Your task to perform on an android device: open app "Google Find My Device" Image 0: 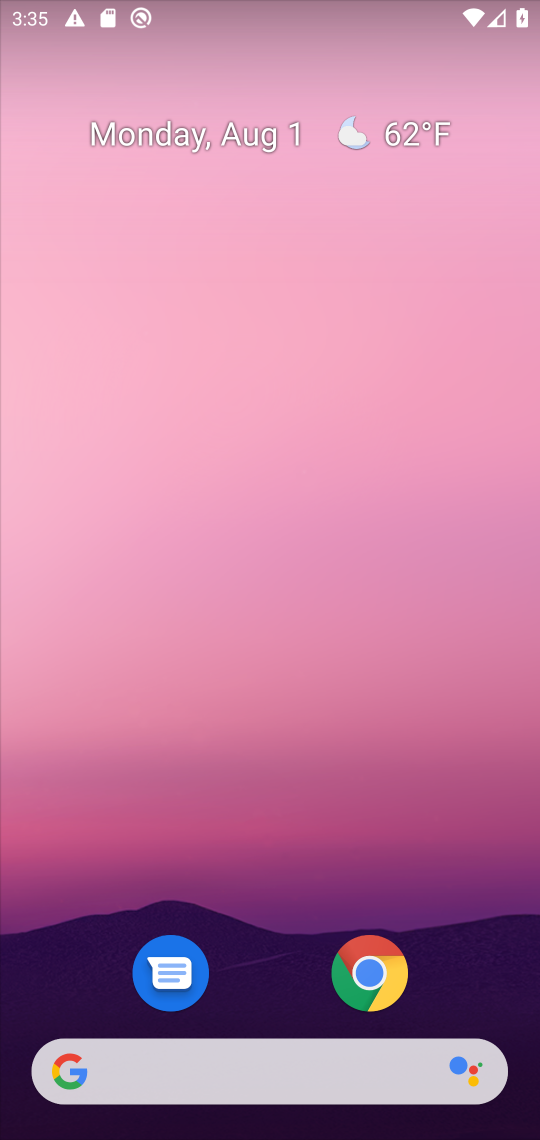
Step 0: press back button
Your task to perform on an android device: open app "Google Find My Device" Image 1: 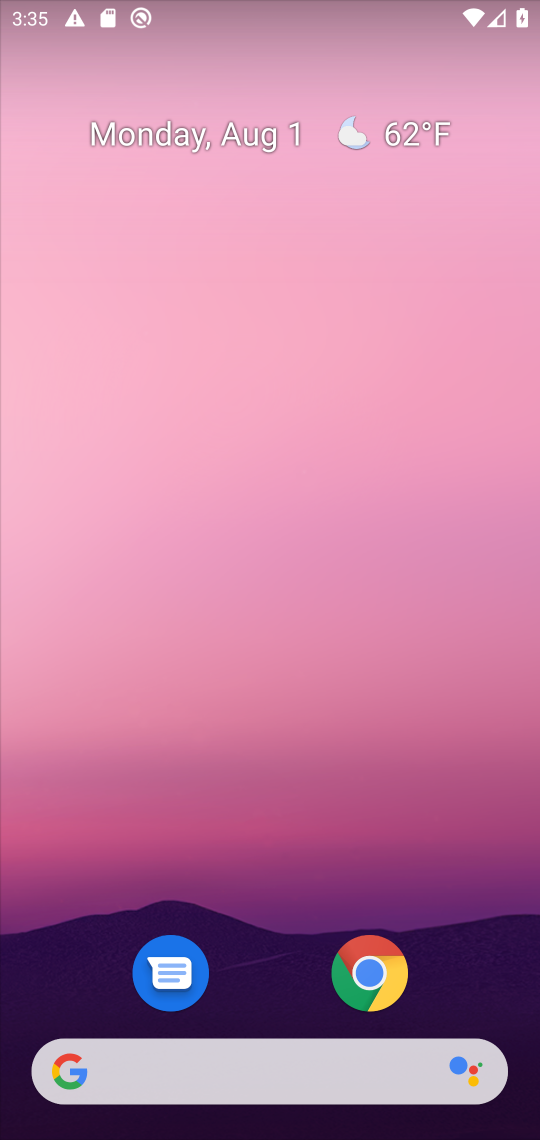
Step 1: drag from (269, 927) to (177, 382)
Your task to perform on an android device: open app "Google Find My Device" Image 2: 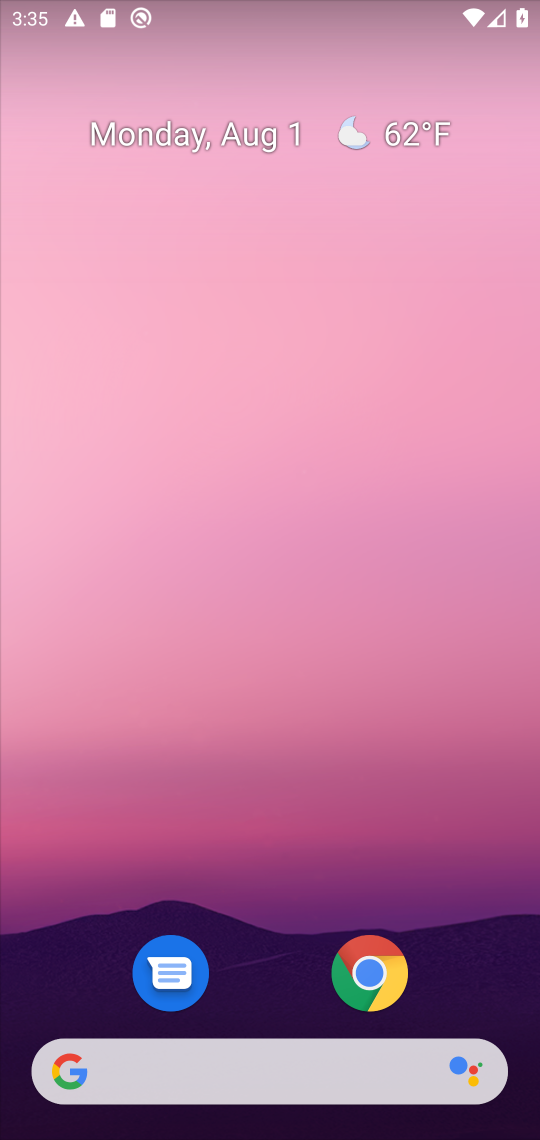
Step 2: click (205, 493)
Your task to perform on an android device: open app "Google Find My Device" Image 3: 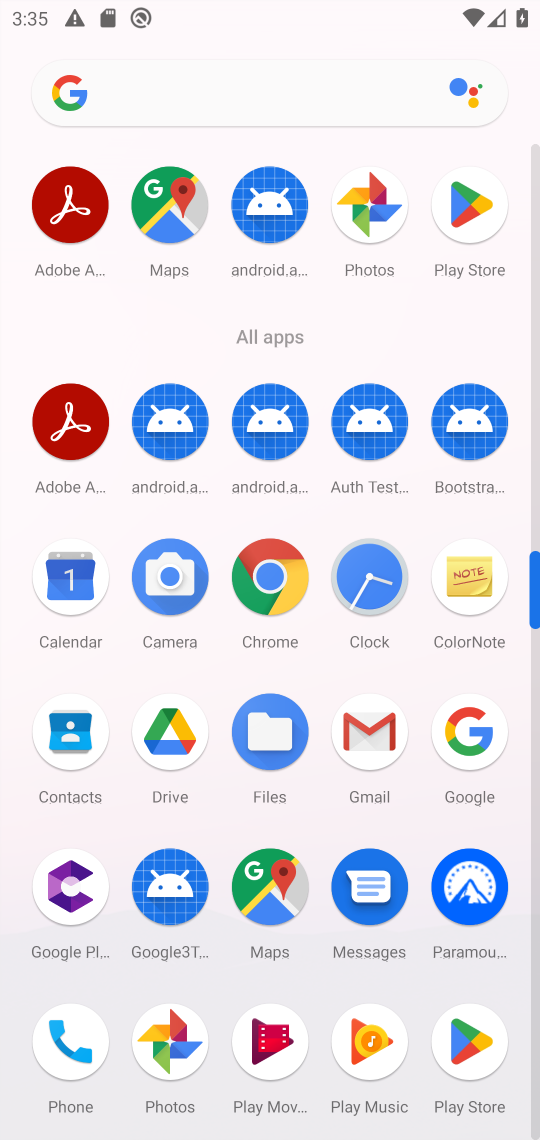
Step 3: click (474, 207)
Your task to perform on an android device: open app "Google Find My Device" Image 4: 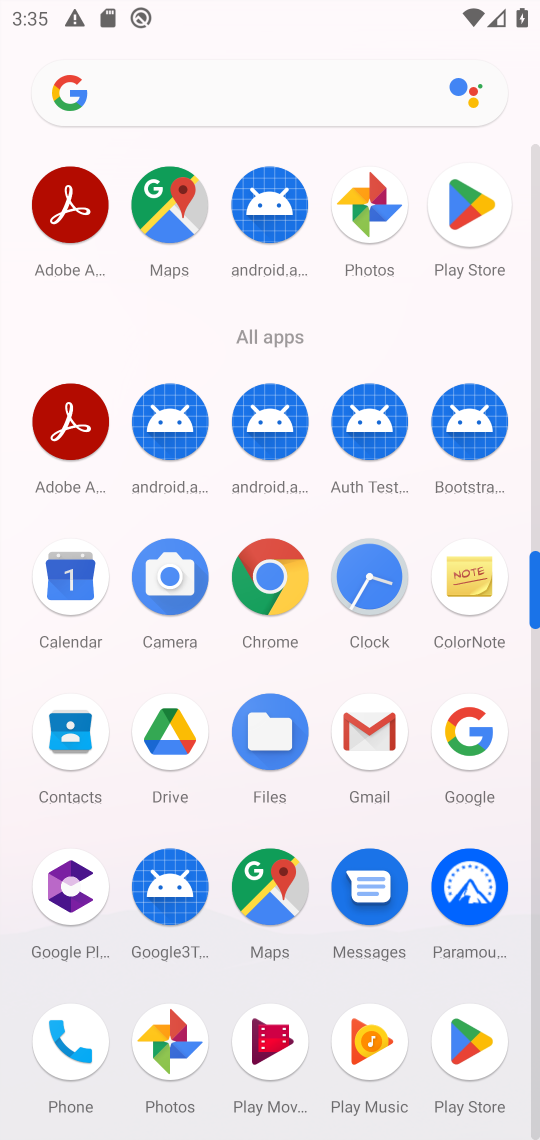
Step 4: click (476, 205)
Your task to perform on an android device: open app "Google Find My Device" Image 5: 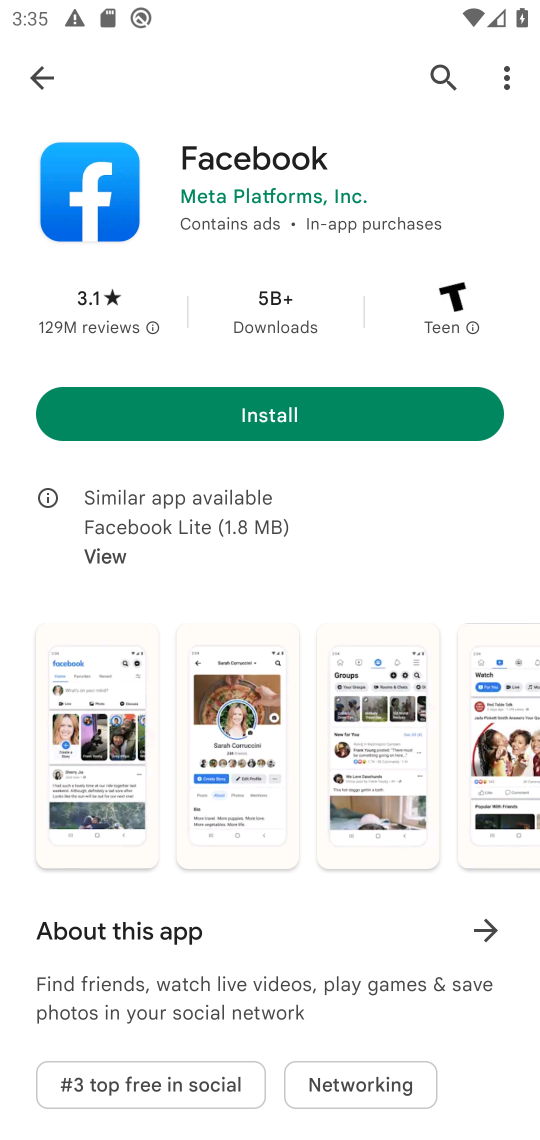
Step 5: click (479, 208)
Your task to perform on an android device: open app "Google Find My Device" Image 6: 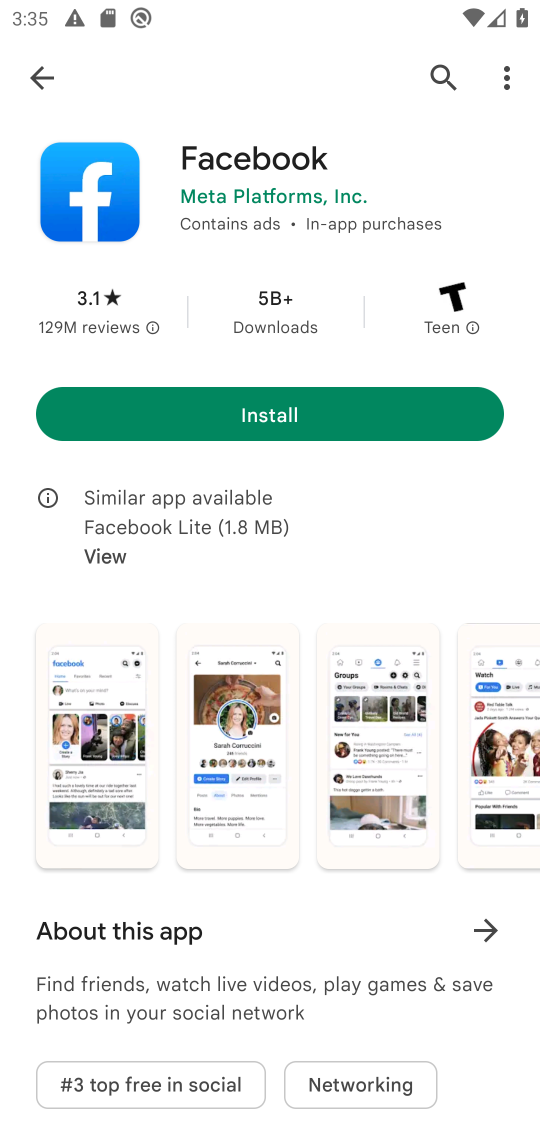
Step 6: click (28, 61)
Your task to perform on an android device: open app "Google Find My Device" Image 7: 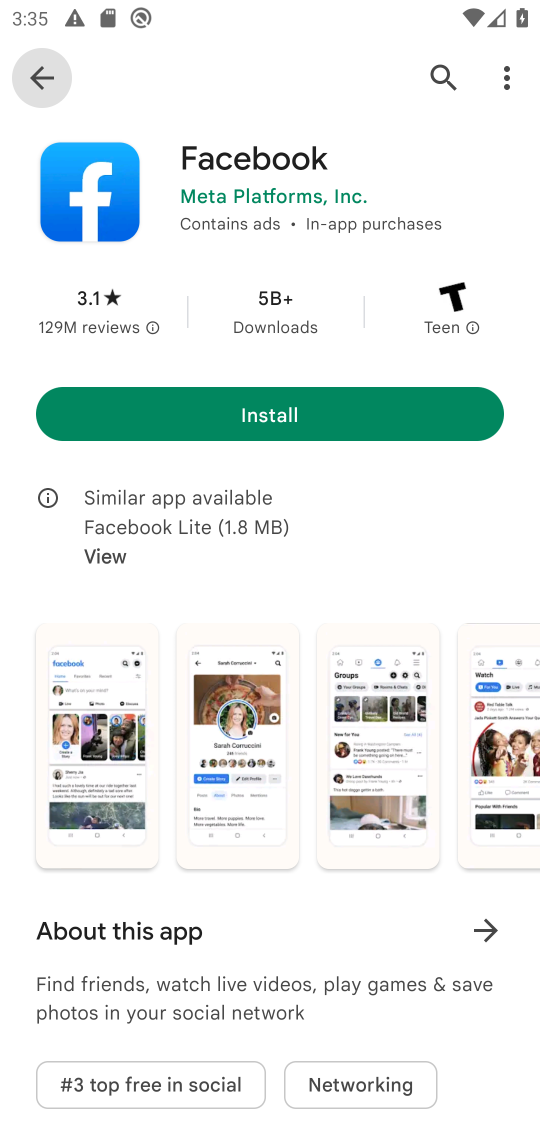
Step 7: click (29, 61)
Your task to perform on an android device: open app "Google Find My Device" Image 8: 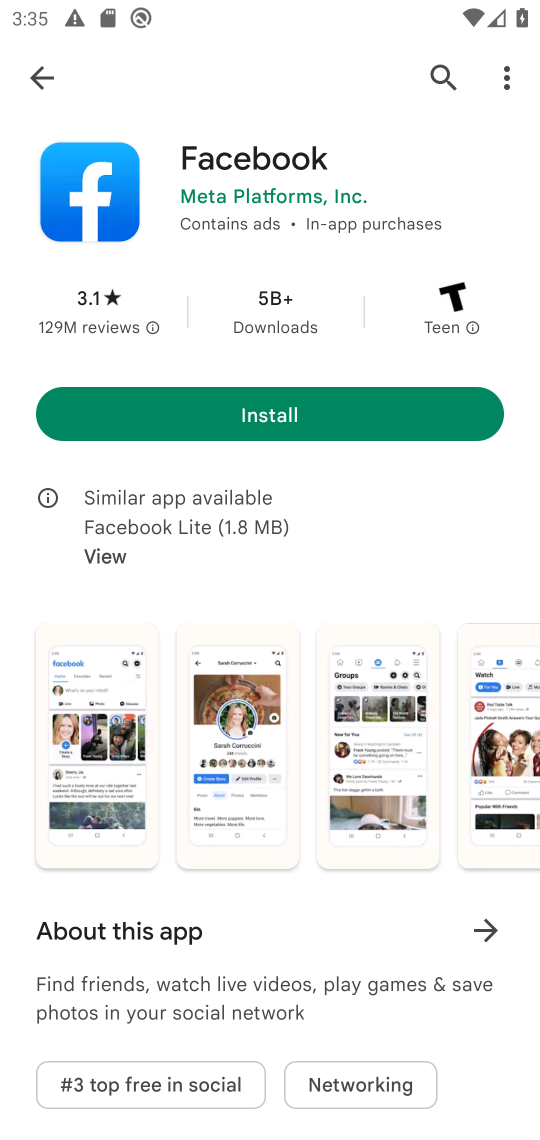
Step 8: click (45, 70)
Your task to perform on an android device: open app "Google Find My Device" Image 9: 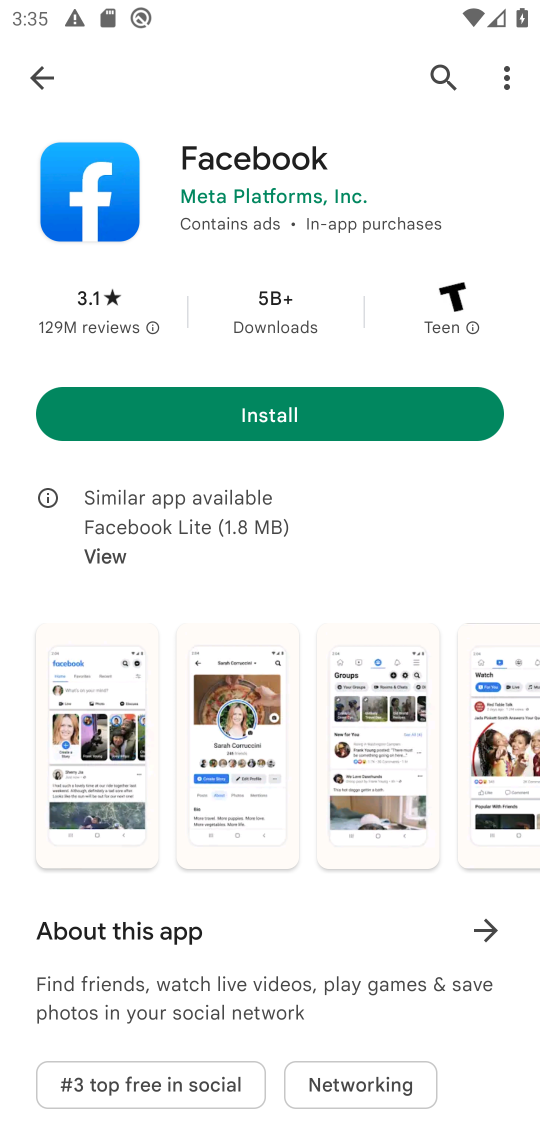
Step 9: click (57, 86)
Your task to perform on an android device: open app "Google Find My Device" Image 10: 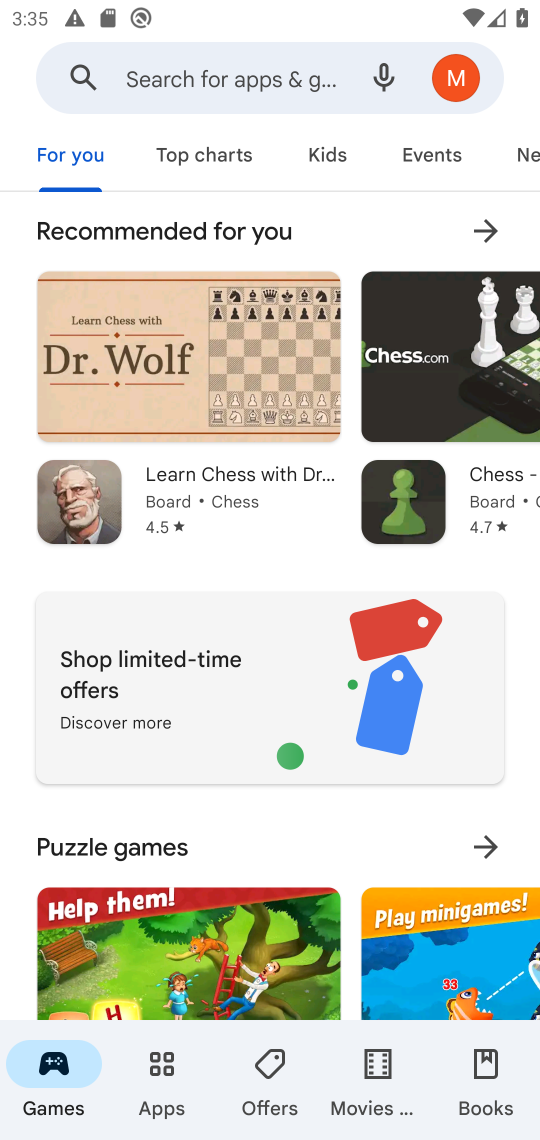
Step 10: click (144, 61)
Your task to perform on an android device: open app "Google Find My Device" Image 11: 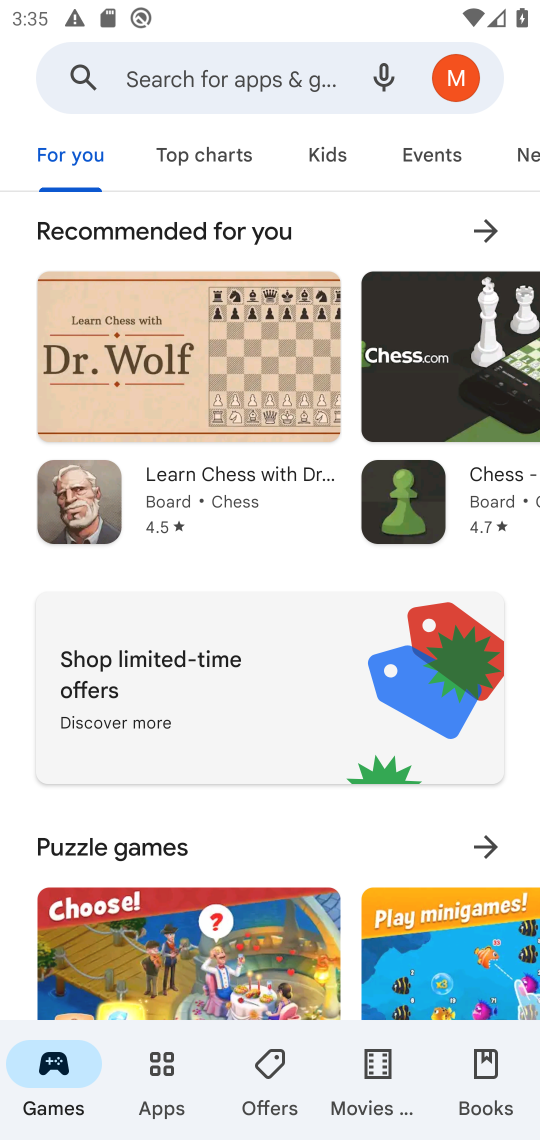
Step 11: click (144, 70)
Your task to perform on an android device: open app "Google Find My Device" Image 12: 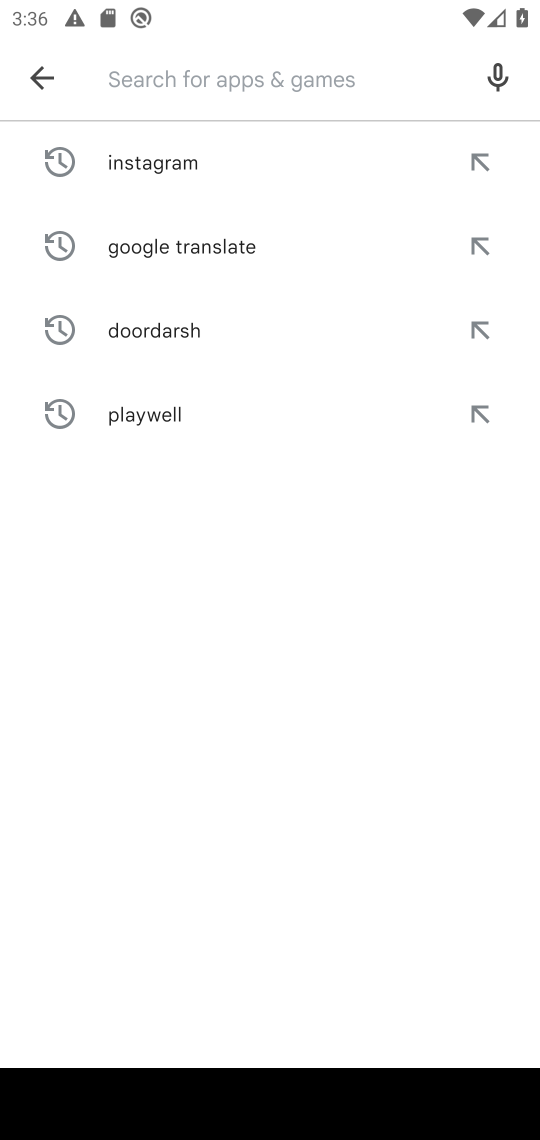
Step 12: type "Google find My Device"
Your task to perform on an android device: open app "Google Find My Device" Image 13: 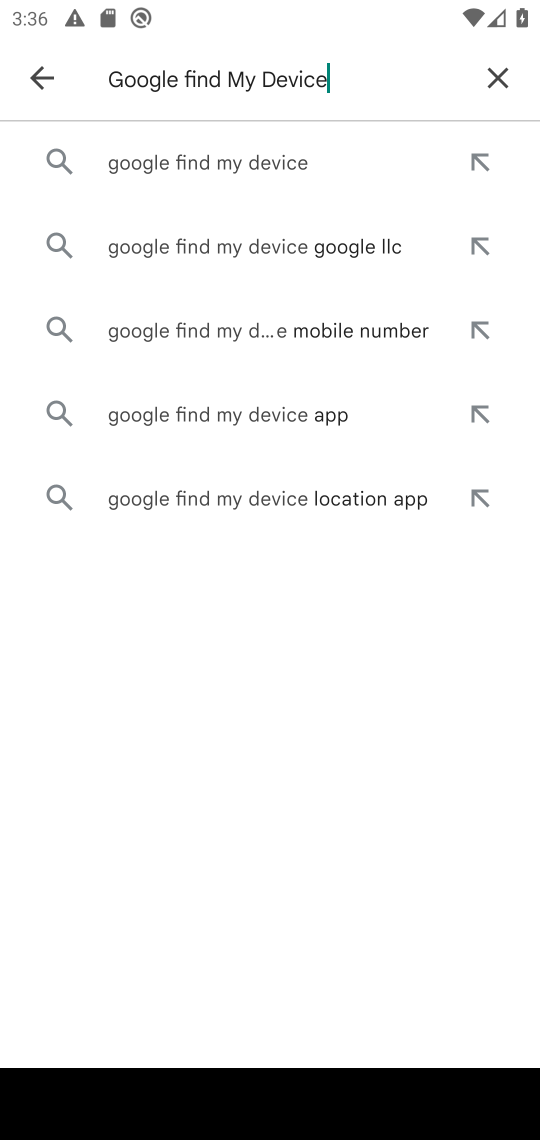
Step 13: click (202, 168)
Your task to perform on an android device: open app "Google Find My Device" Image 14: 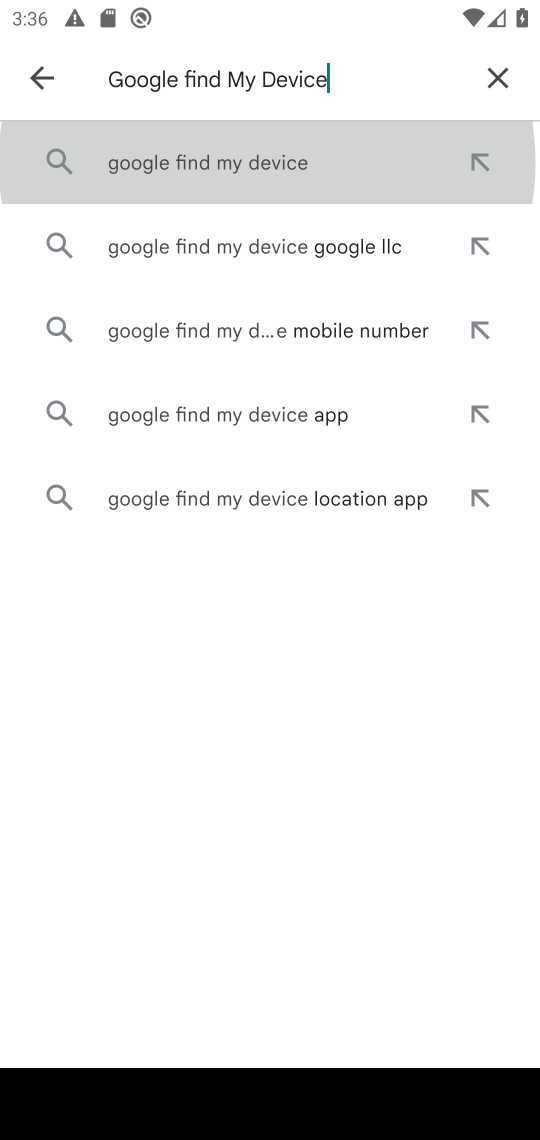
Step 14: click (196, 189)
Your task to perform on an android device: open app "Google Find My Device" Image 15: 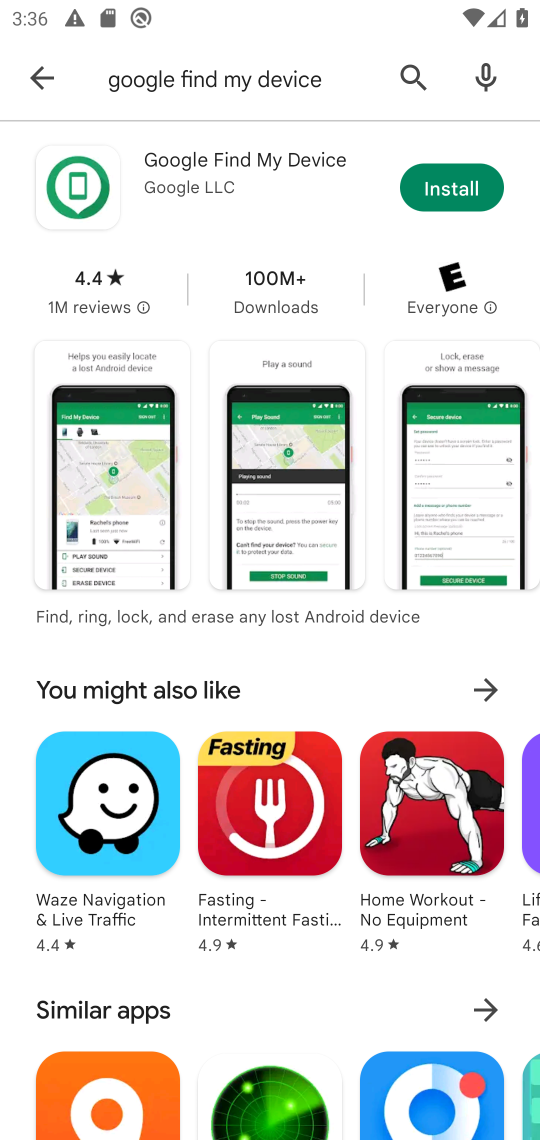
Step 15: click (458, 187)
Your task to perform on an android device: open app "Google Find My Device" Image 16: 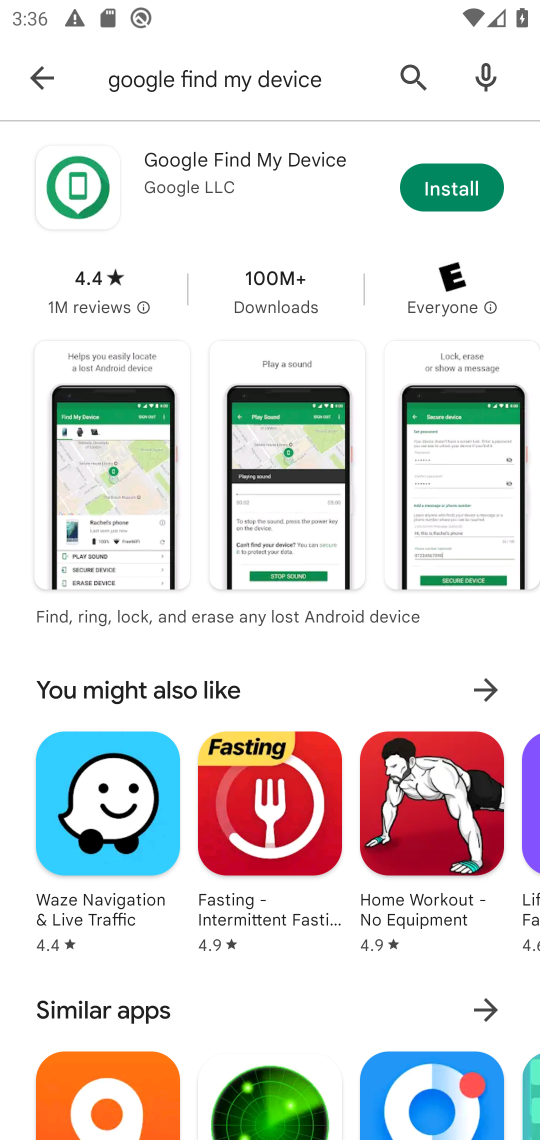
Step 16: click (455, 186)
Your task to perform on an android device: open app "Google Find My Device" Image 17: 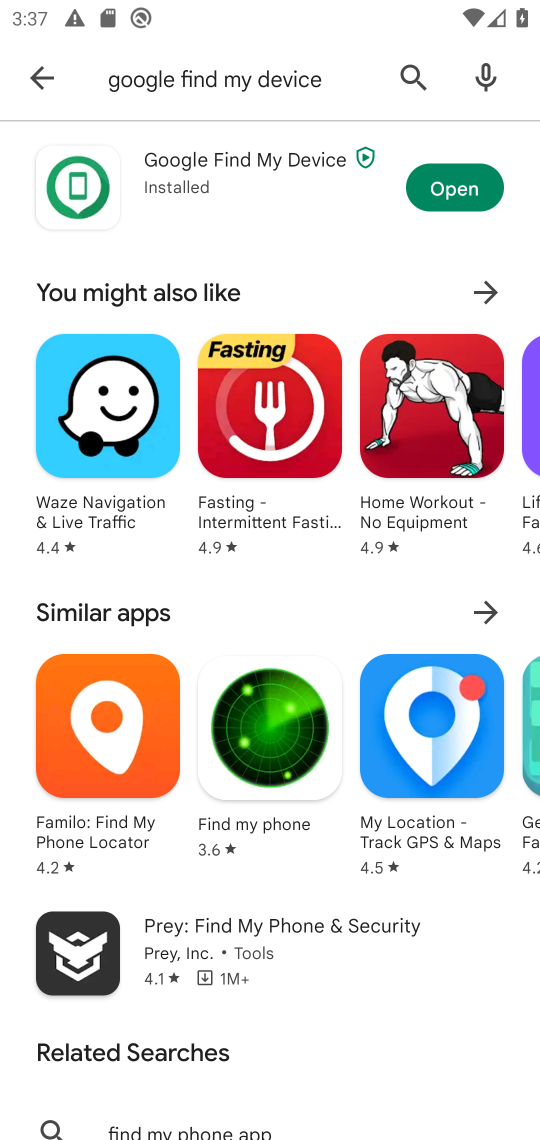
Step 17: click (453, 179)
Your task to perform on an android device: open app "Google Find My Device" Image 18: 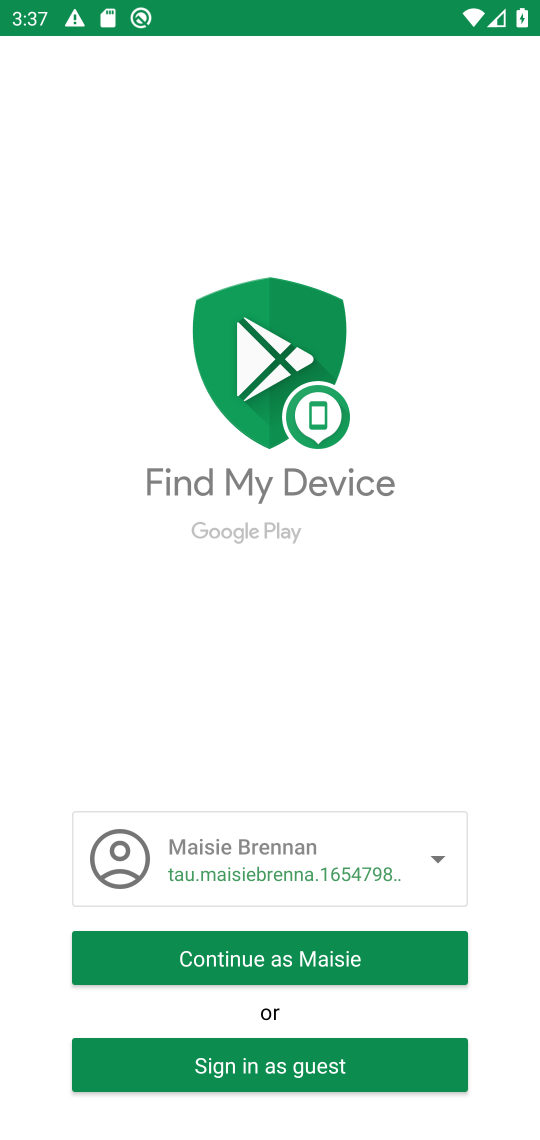
Step 18: click (276, 943)
Your task to perform on an android device: open app "Google Find My Device" Image 19: 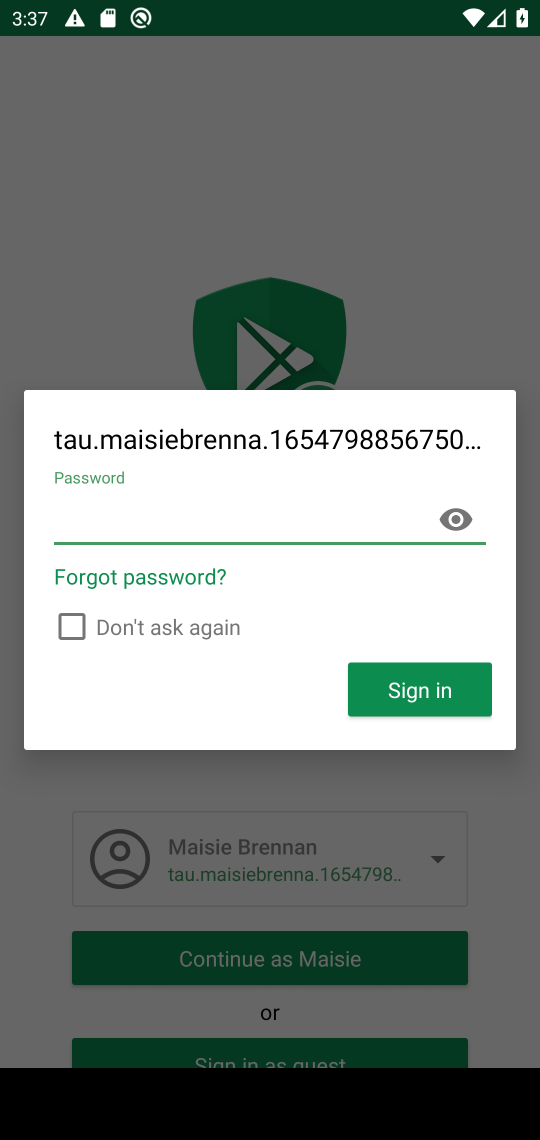
Step 19: click (82, 612)
Your task to perform on an android device: open app "Google Find My Device" Image 20: 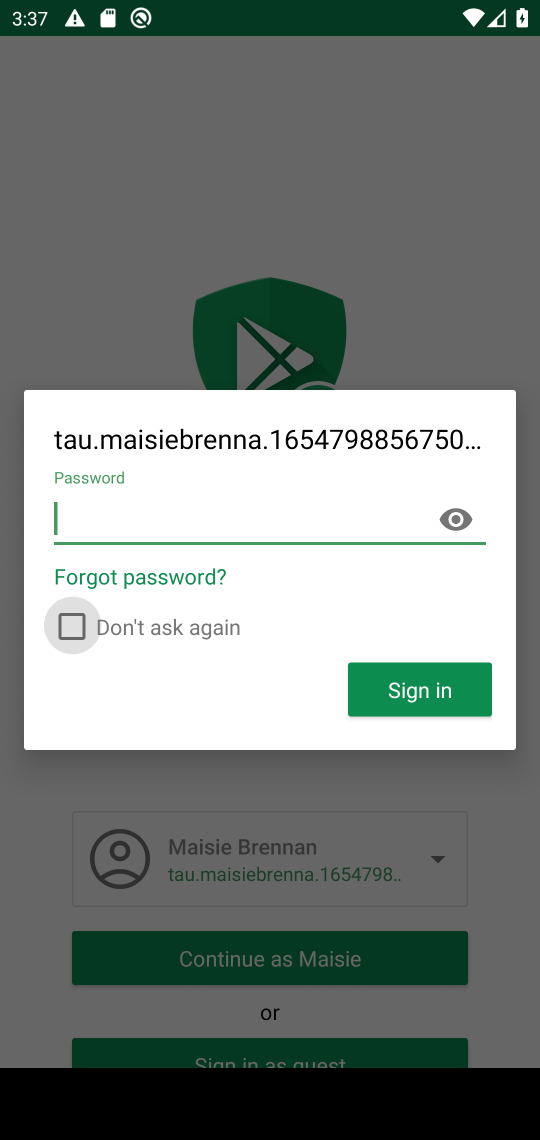
Step 20: click (82, 611)
Your task to perform on an android device: open app "Google Find My Device" Image 21: 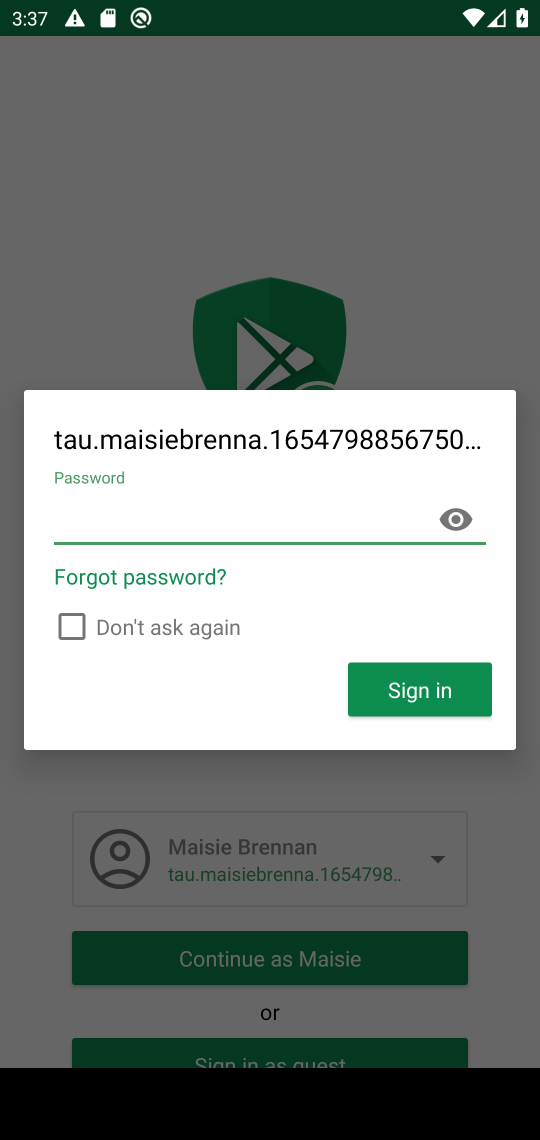
Step 21: click (61, 624)
Your task to perform on an android device: open app "Google Find My Device" Image 22: 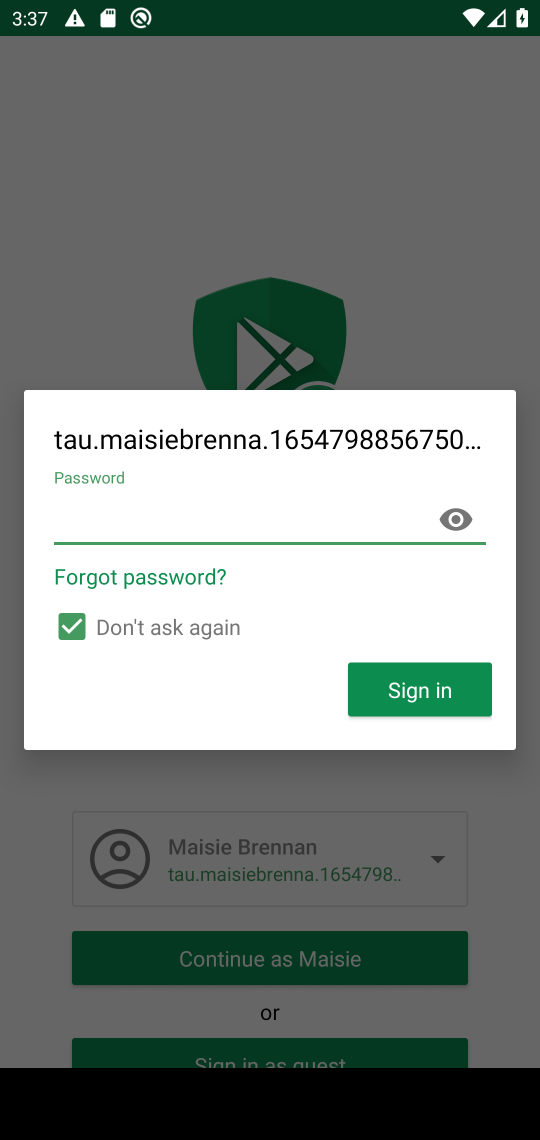
Step 22: click (418, 703)
Your task to perform on an android device: open app "Google Find My Device" Image 23: 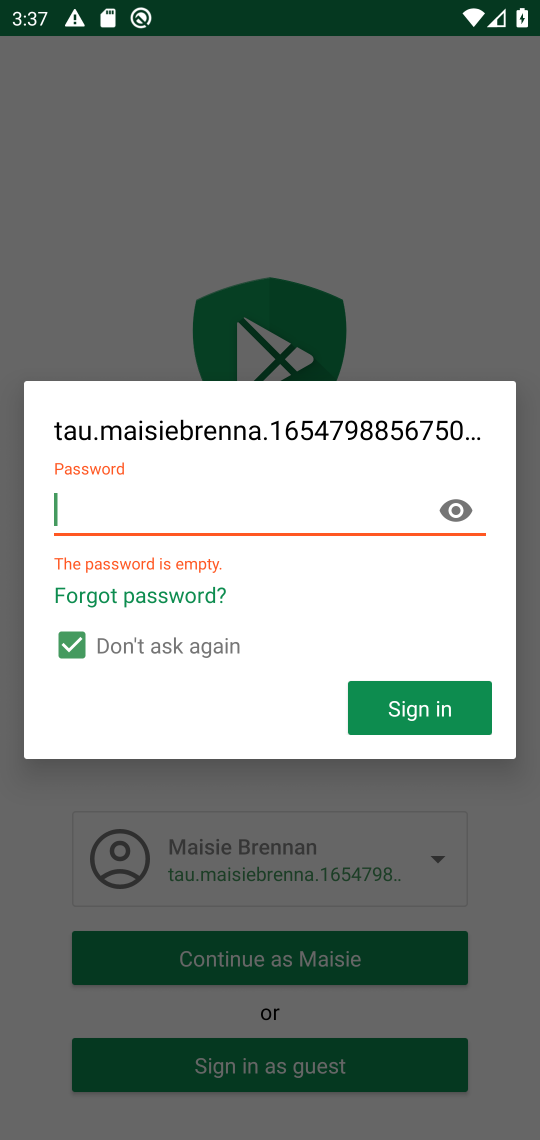
Step 23: task complete